Your task to perform on an android device: Open Google Maps and go to "Timeline" Image 0: 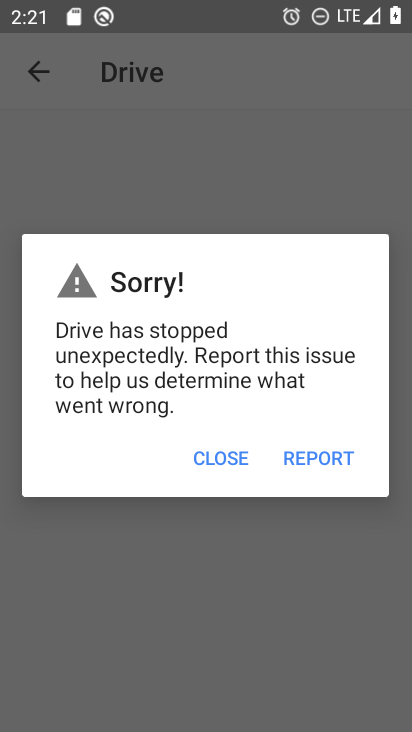
Step 0: press home button
Your task to perform on an android device: Open Google Maps and go to "Timeline" Image 1: 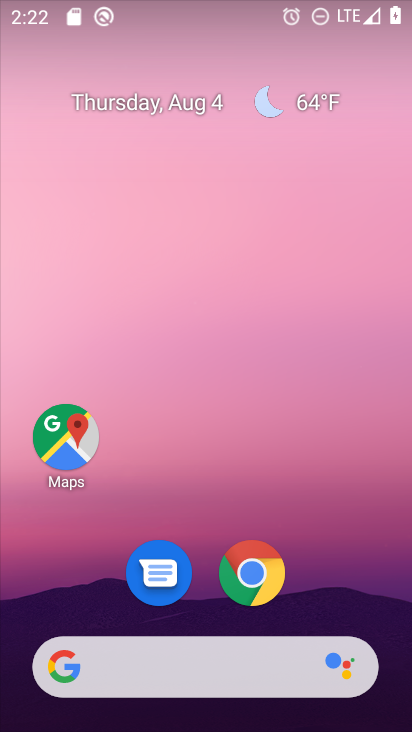
Step 1: drag from (372, 579) to (376, 14)
Your task to perform on an android device: Open Google Maps and go to "Timeline" Image 2: 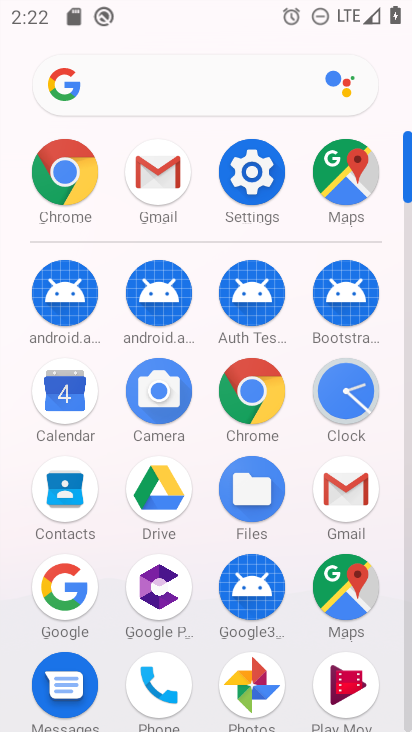
Step 2: click (331, 592)
Your task to perform on an android device: Open Google Maps and go to "Timeline" Image 3: 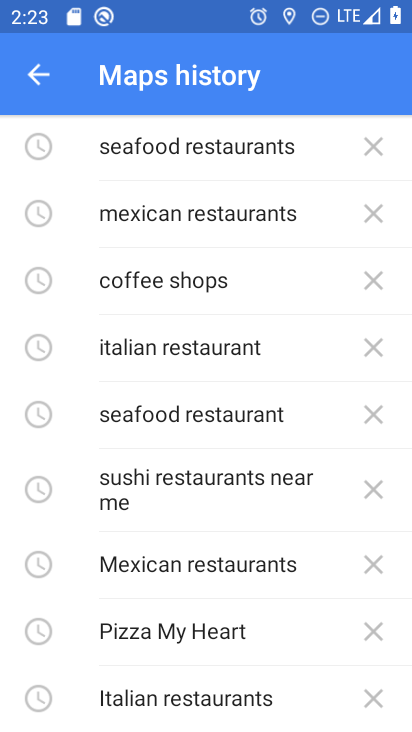
Step 3: click (45, 85)
Your task to perform on an android device: Open Google Maps and go to "Timeline" Image 4: 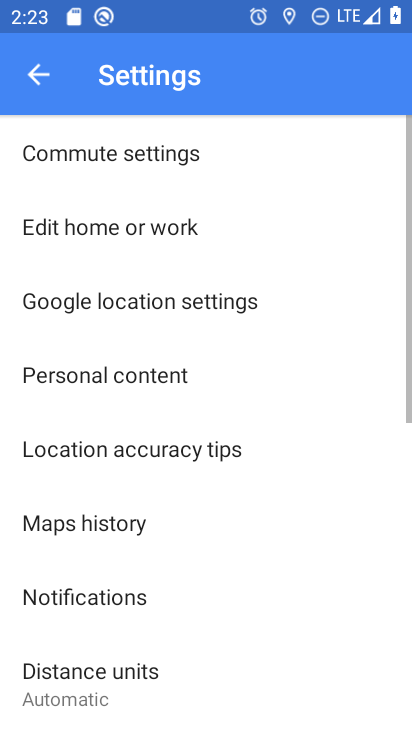
Step 4: click (45, 85)
Your task to perform on an android device: Open Google Maps and go to "Timeline" Image 5: 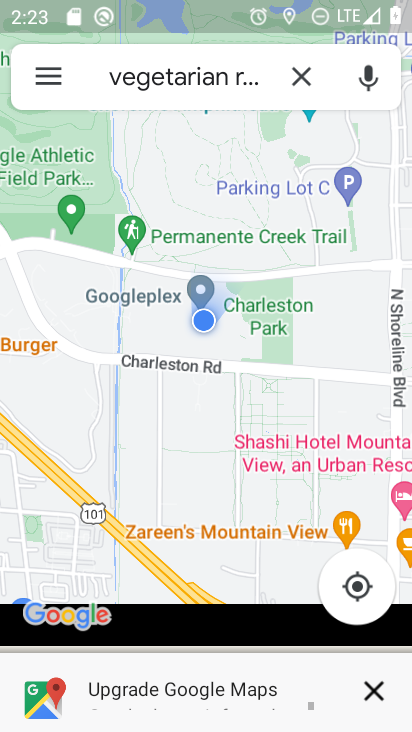
Step 5: click (45, 85)
Your task to perform on an android device: Open Google Maps and go to "Timeline" Image 6: 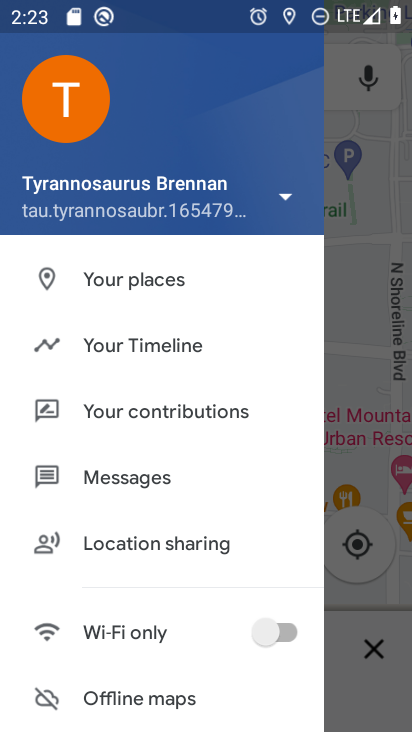
Step 6: click (176, 337)
Your task to perform on an android device: Open Google Maps and go to "Timeline" Image 7: 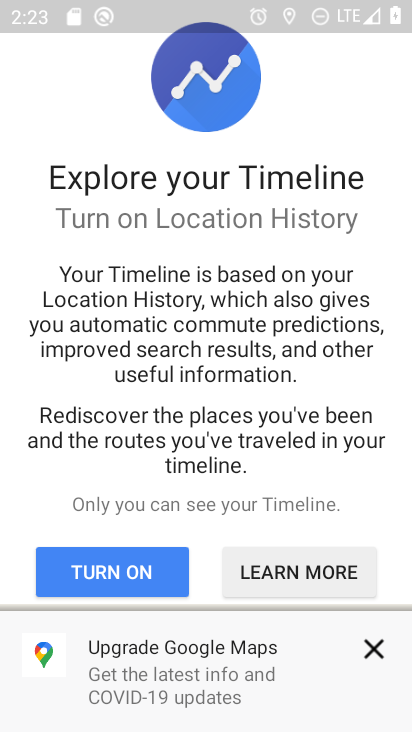
Step 7: click (153, 554)
Your task to perform on an android device: Open Google Maps and go to "Timeline" Image 8: 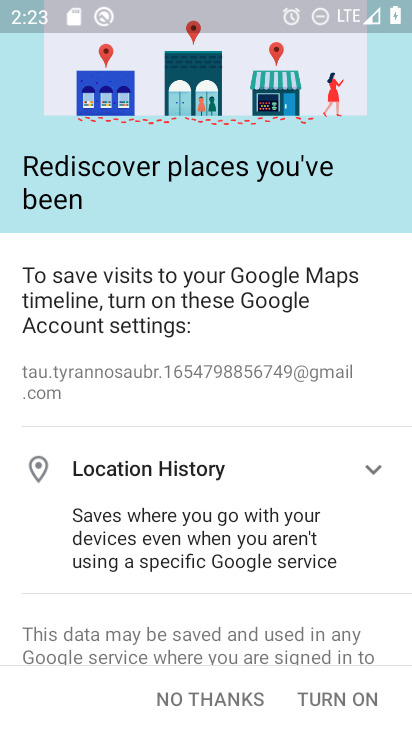
Step 8: click (230, 688)
Your task to perform on an android device: Open Google Maps and go to "Timeline" Image 9: 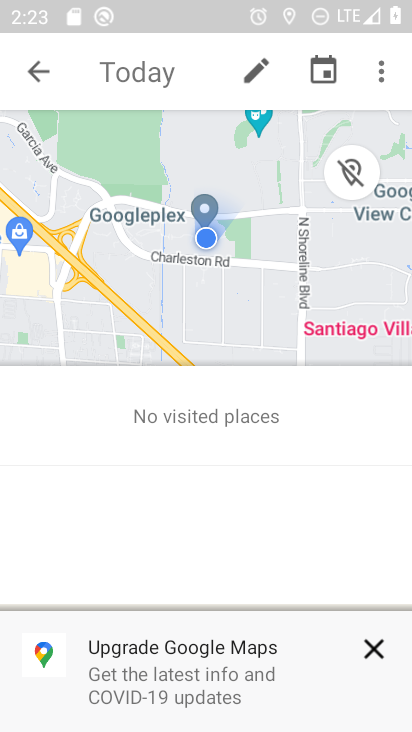
Step 9: task complete